Your task to perform on an android device: set default search engine in the chrome app Image 0: 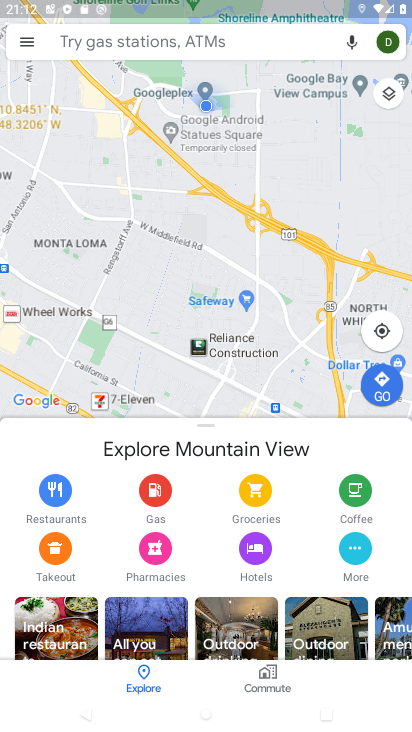
Step 0: press home button
Your task to perform on an android device: set default search engine in the chrome app Image 1: 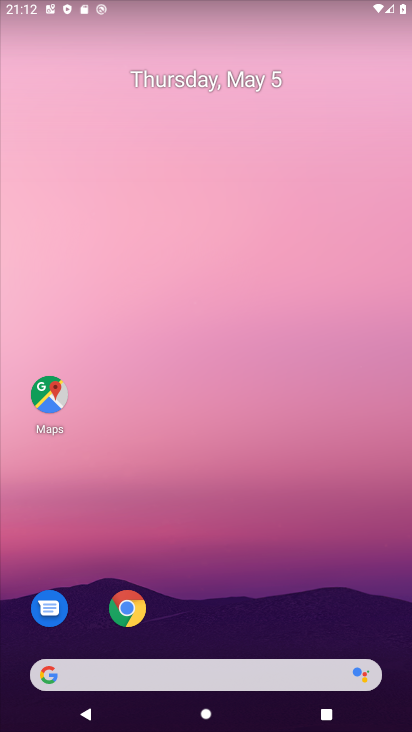
Step 1: drag from (335, 644) to (258, 0)
Your task to perform on an android device: set default search engine in the chrome app Image 2: 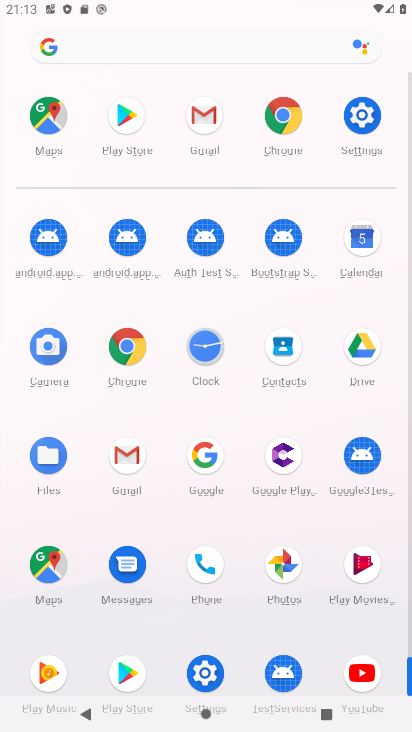
Step 2: click (129, 348)
Your task to perform on an android device: set default search engine in the chrome app Image 3: 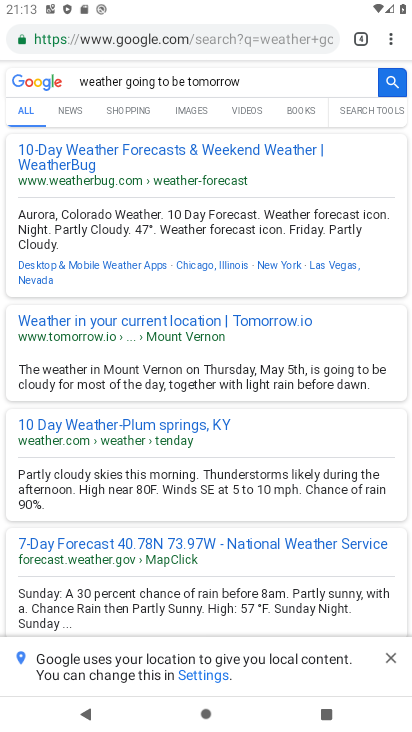
Step 3: drag from (389, 33) to (253, 437)
Your task to perform on an android device: set default search engine in the chrome app Image 4: 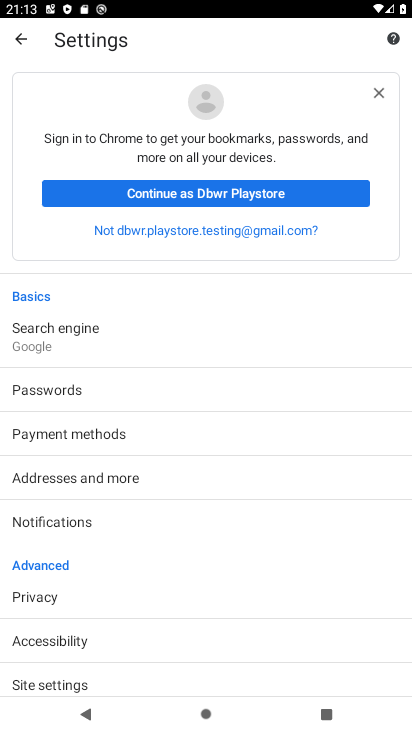
Step 4: click (85, 338)
Your task to perform on an android device: set default search engine in the chrome app Image 5: 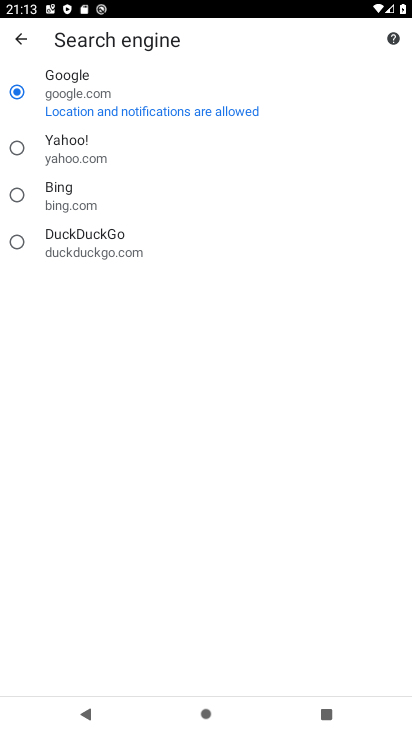
Step 5: click (33, 147)
Your task to perform on an android device: set default search engine in the chrome app Image 6: 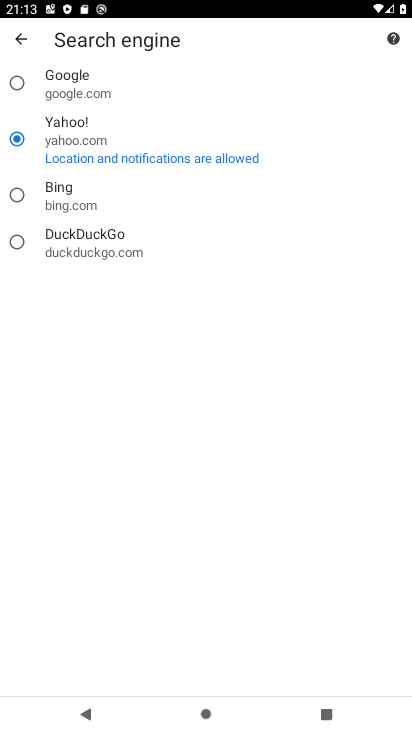
Step 6: click (52, 88)
Your task to perform on an android device: set default search engine in the chrome app Image 7: 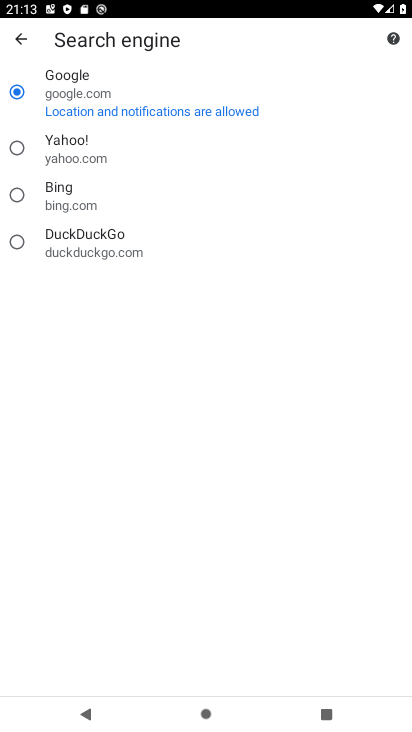
Step 7: task complete